Your task to perform on an android device: Search for Mexican restaurants on Maps Image 0: 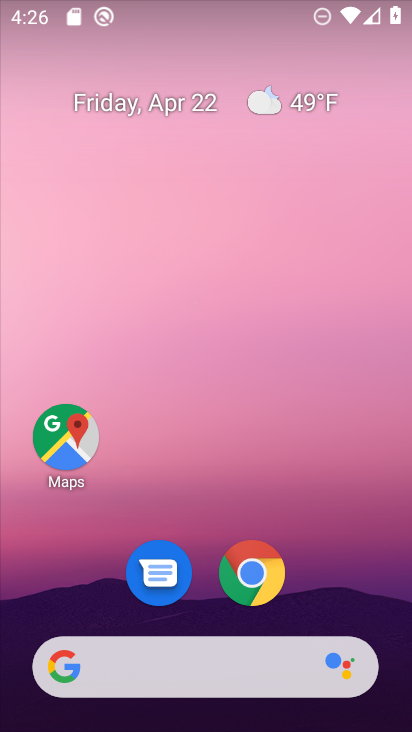
Step 0: click (69, 429)
Your task to perform on an android device: Search for Mexican restaurants on Maps Image 1: 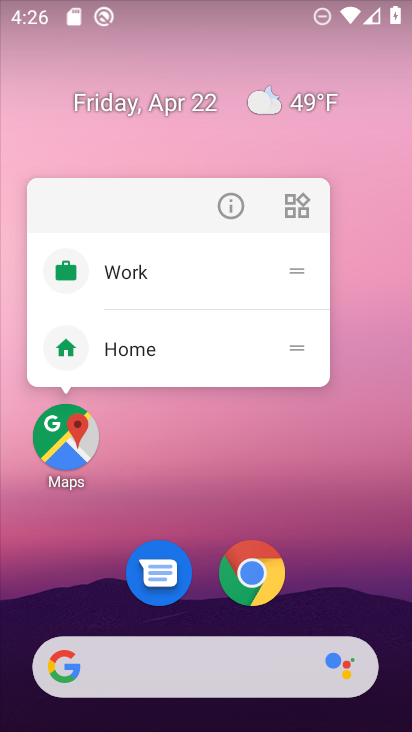
Step 1: click (75, 432)
Your task to perform on an android device: Search for Mexican restaurants on Maps Image 2: 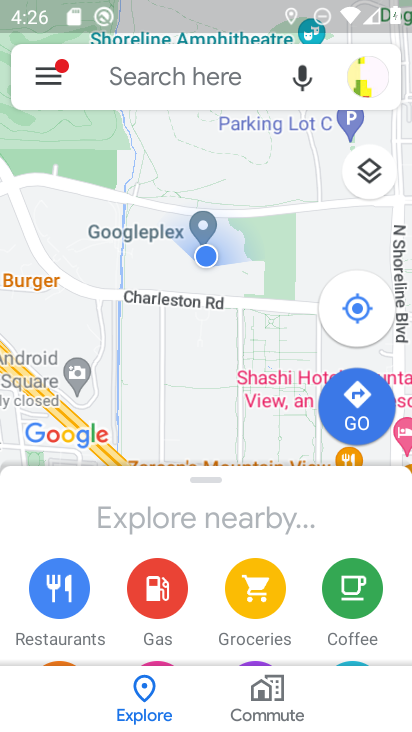
Step 2: click (184, 74)
Your task to perform on an android device: Search for Mexican restaurants on Maps Image 3: 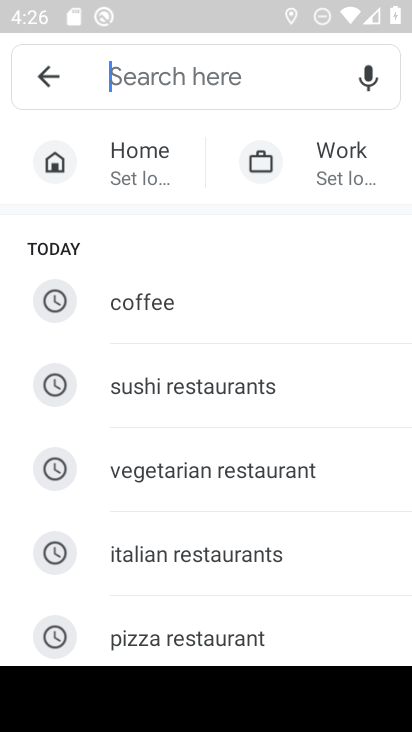
Step 3: type "mexican restaurants"
Your task to perform on an android device: Search for Mexican restaurants on Maps Image 4: 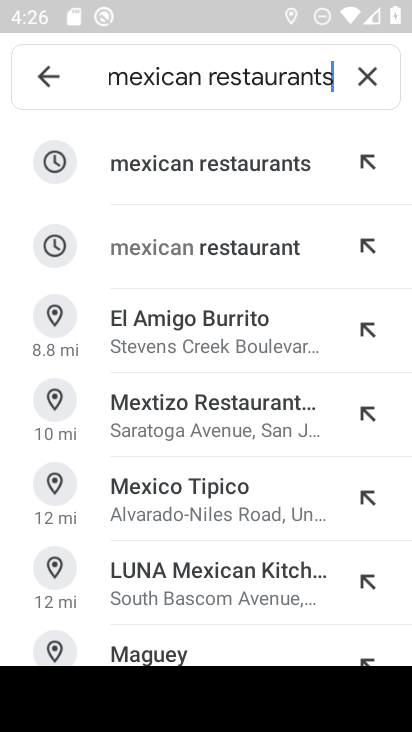
Step 4: task complete